Your task to perform on an android device: refresh tabs in the chrome app Image 0: 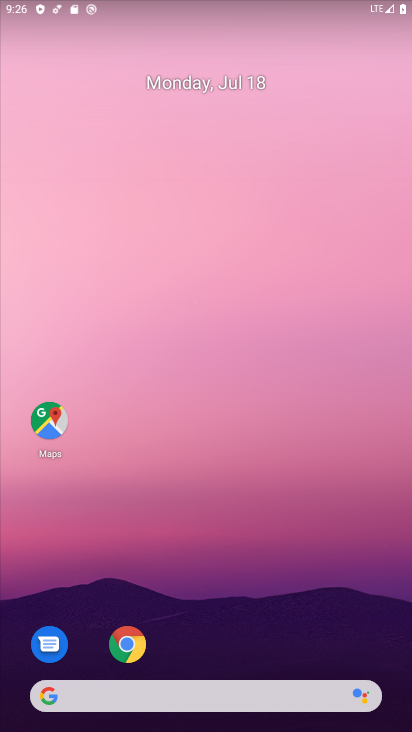
Step 0: drag from (324, 619) to (369, 206)
Your task to perform on an android device: refresh tabs in the chrome app Image 1: 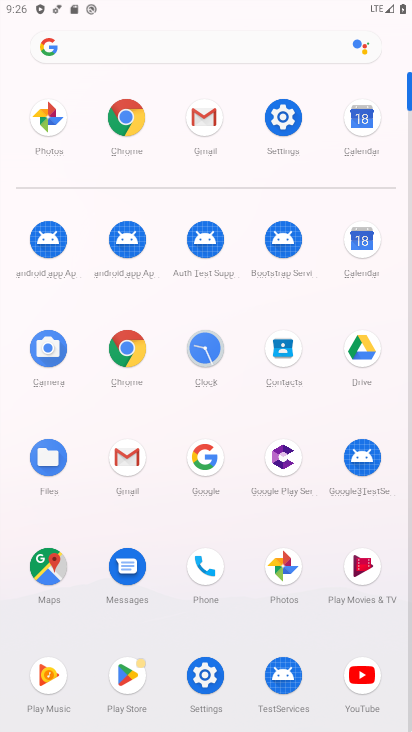
Step 1: click (134, 345)
Your task to perform on an android device: refresh tabs in the chrome app Image 2: 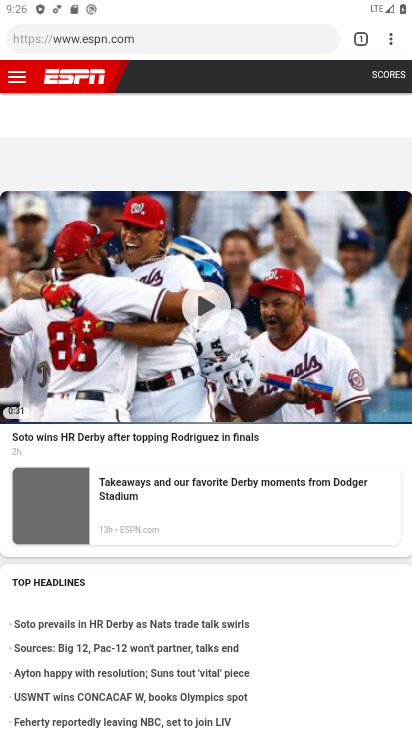
Step 2: click (388, 46)
Your task to perform on an android device: refresh tabs in the chrome app Image 3: 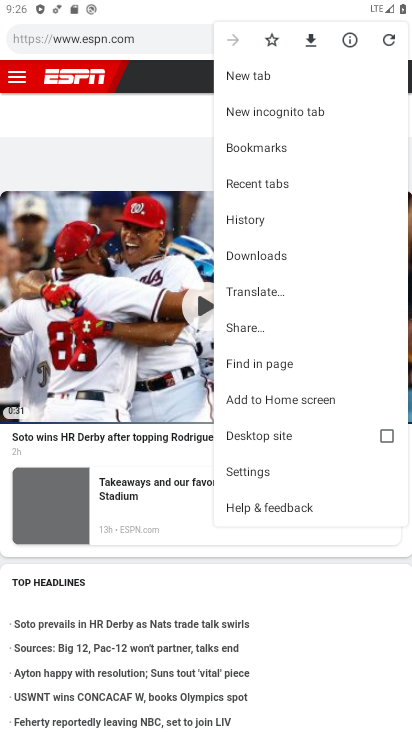
Step 3: click (391, 40)
Your task to perform on an android device: refresh tabs in the chrome app Image 4: 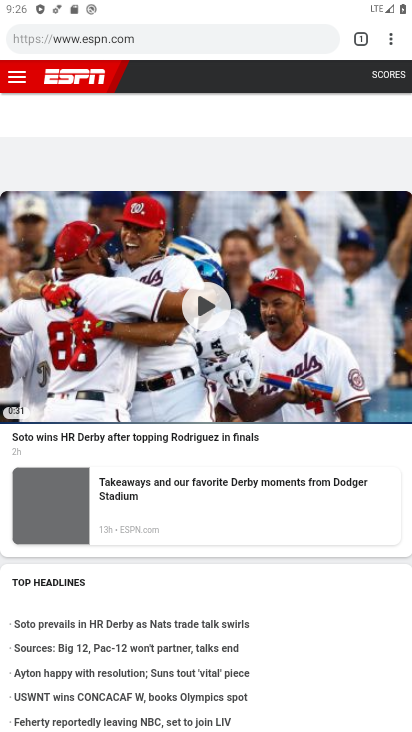
Step 4: task complete